Your task to perform on an android device: check storage Image 0: 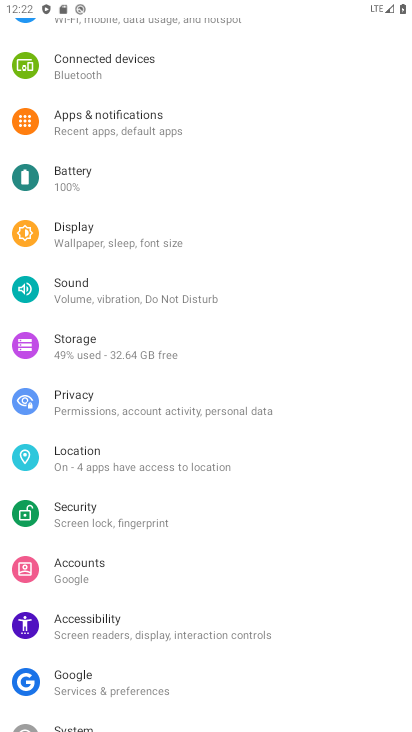
Step 0: click (144, 350)
Your task to perform on an android device: check storage Image 1: 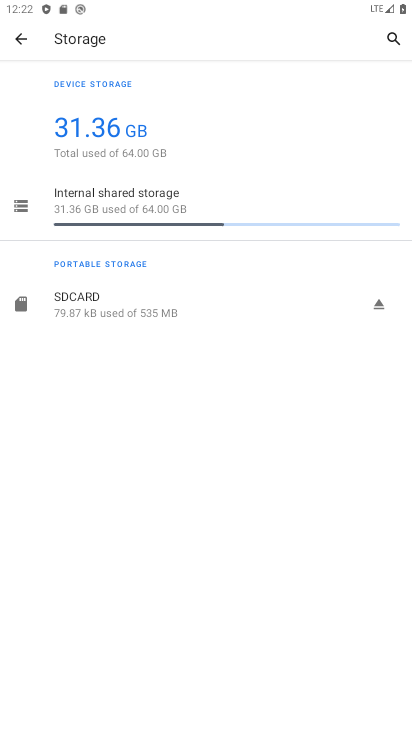
Step 1: task complete